Your task to perform on an android device: Go to wifi settings Image 0: 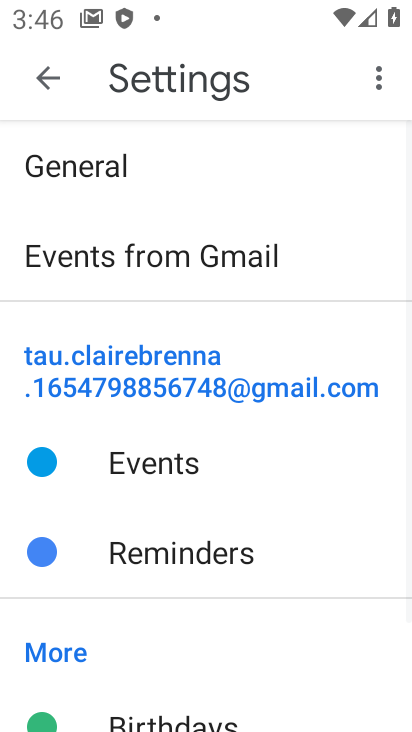
Step 0: press back button
Your task to perform on an android device: Go to wifi settings Image 1: 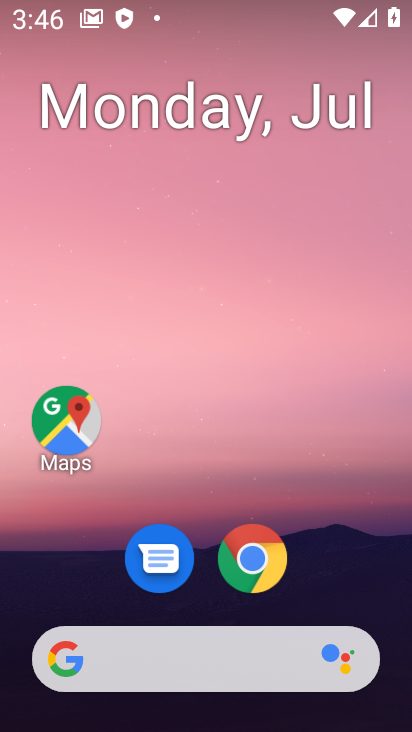
Step 1: drag from (112, 7) to (174, 621)
Your task to perform on an android device: Go to wifi settings Image 2: 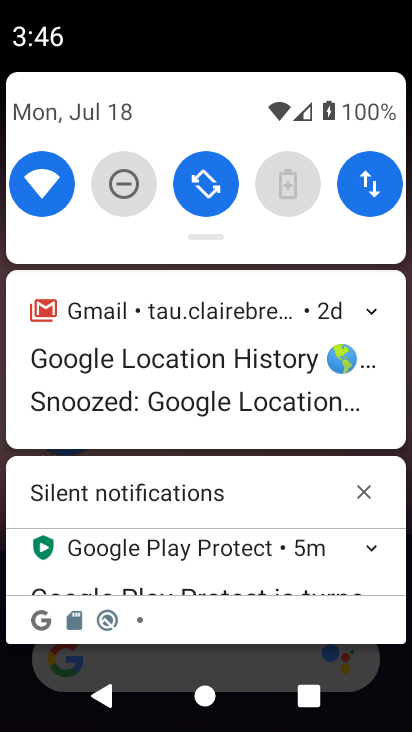
Step 2: click (44, 145)
Your task to perform on an android device: Go to wifi settings Image 3: 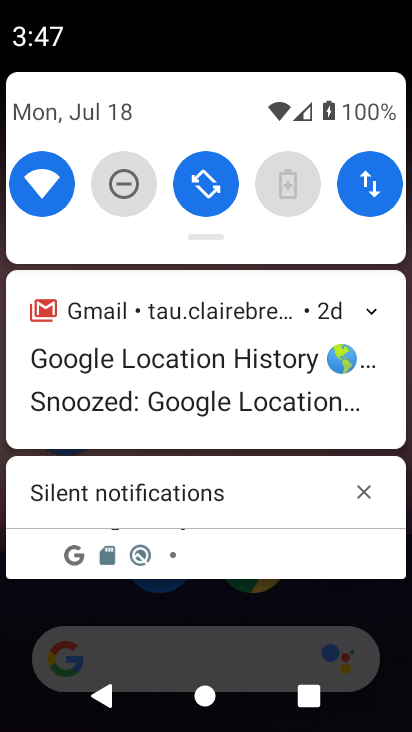
Step 3: click (46, 201)
Your task to perform on an android device: Go to wifi settings Image 4: 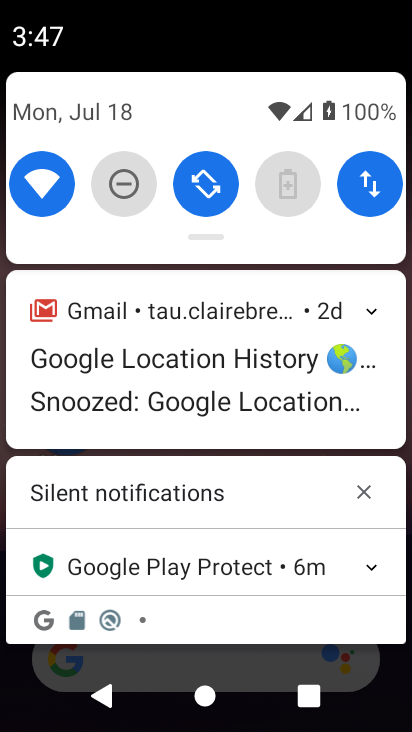
Step 4: click (44, 179)
Your task to perform on an android device: Go to wifi settings Image 5: 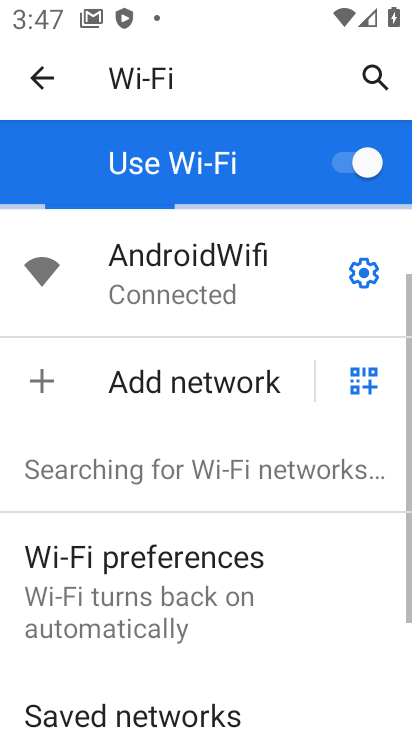
Step 5: task complete